Your task to perform on an android device: Open settings Image 0: 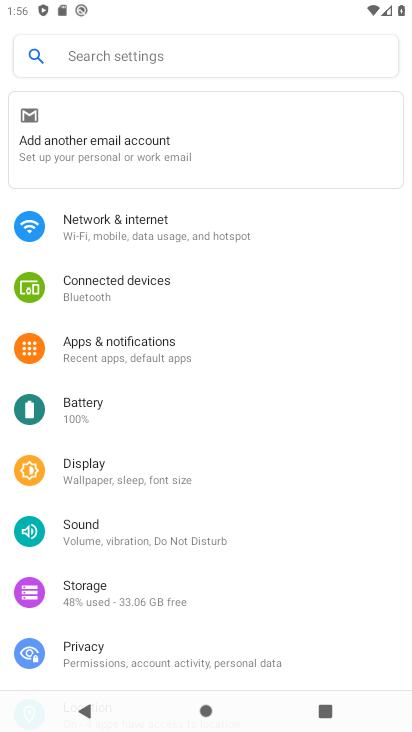
Step 0: drag from (288, 535) to (286, 168)
Your task to perform on an android device: Open settings Image 1: 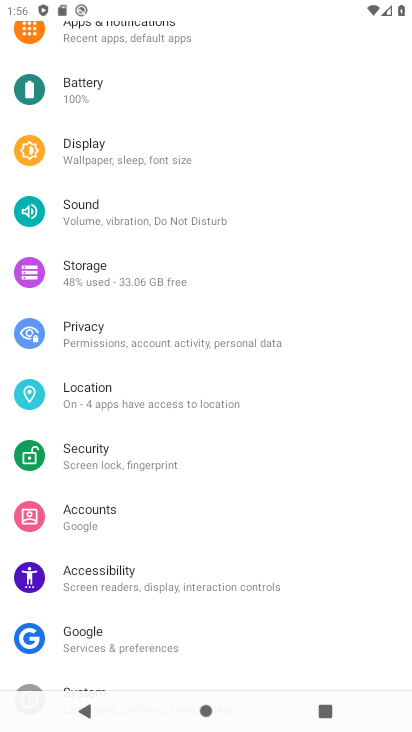
Step 1: task complete